Your task to perform on an android device: Open notification settings Image 0: 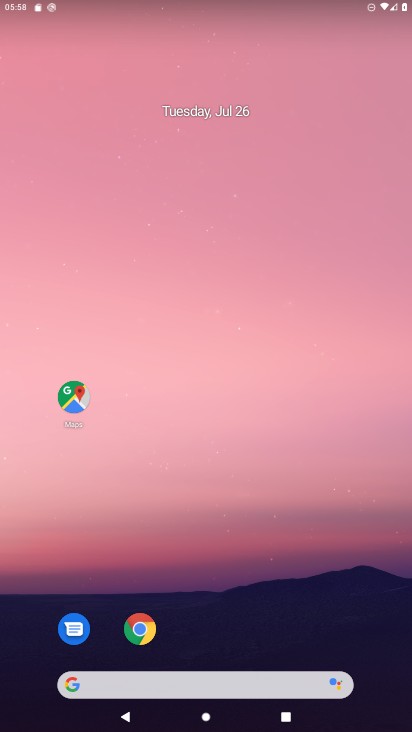
Step 0: drag from (209, 567) to (185, 63)
Your task to perform on an android device: Open notification settings Image 1: 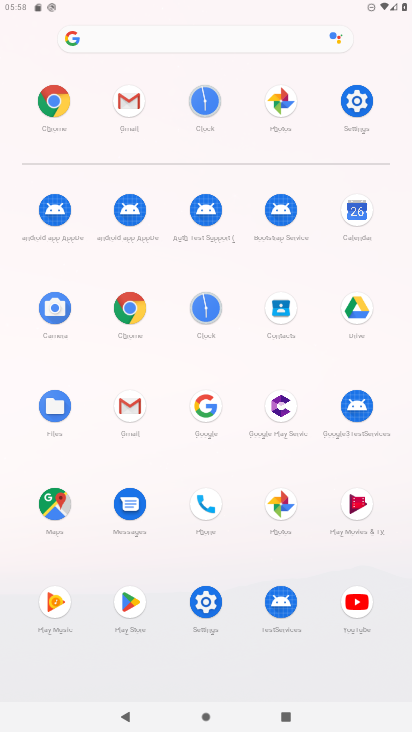
Step 1: click (351, 108)
Your task to perform on an android device: Open notification settings Image 2: 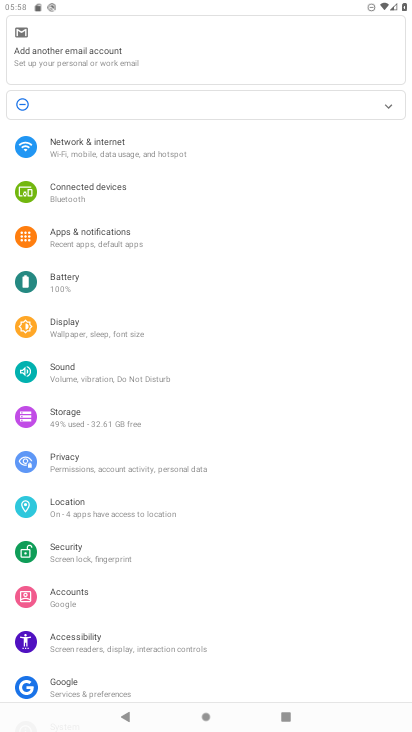
Step 2: click (89, 225)
Your task to perform on an android device: Open notification settings Image 3: 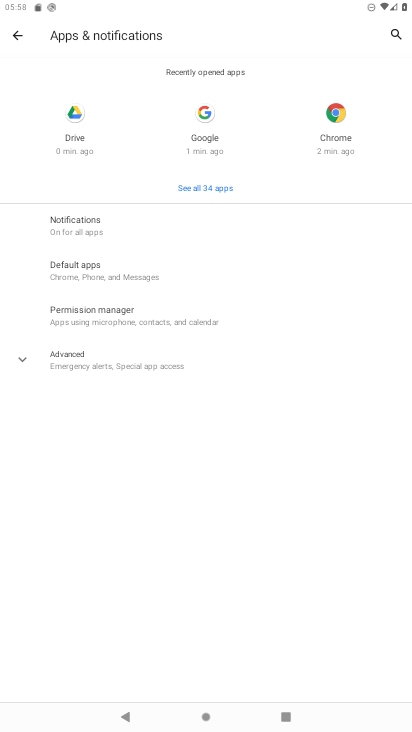
Step 3: click (66, 365)
Your task to perform on an android device: Open notification settings Image 4: 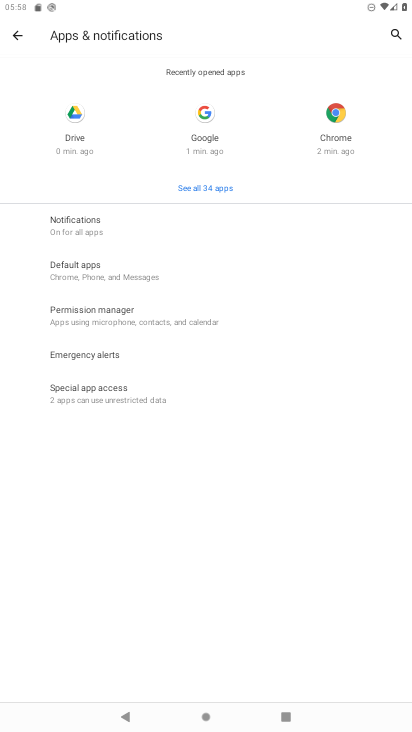
Step 4: click (85, 220)
Your task to perform on an android device: Open notification settings Image 5: 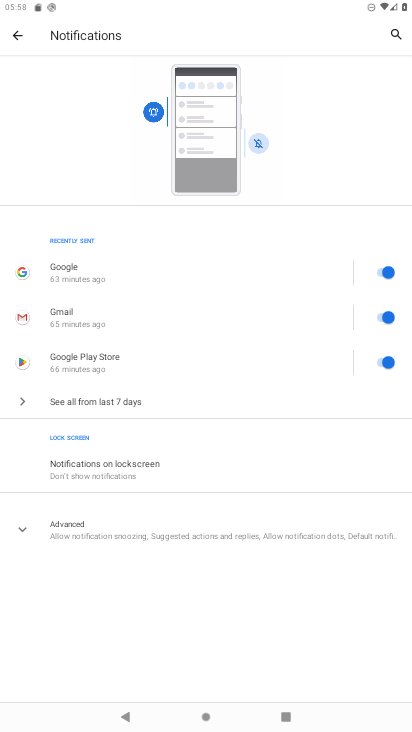
Step 5: task complete